Your task to perform on an android device: snooze an email in the gmail app Image 0: 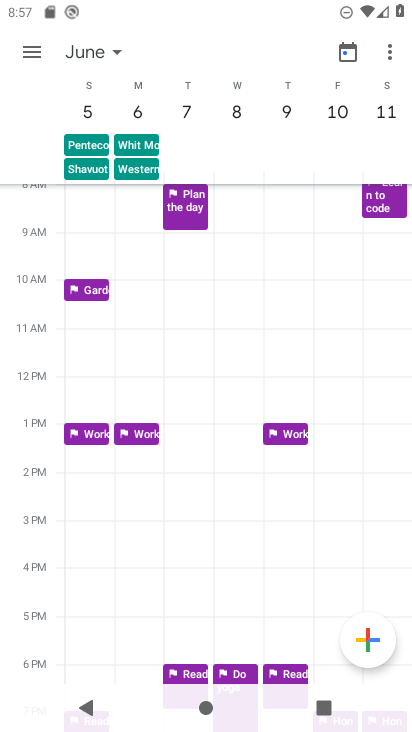
Step 0: press home button
Your task to perform on an android device: snooze an email in the gmail app Image 1: 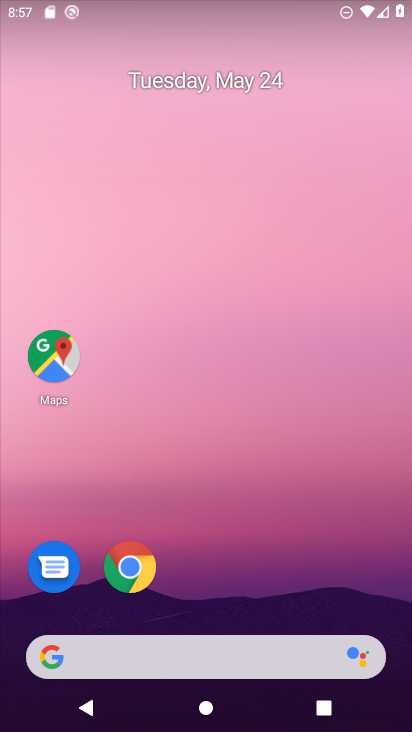
Step 1: drag from (162, 660) to (306, 222)
Your task to perform on an android device: snooze an email in the gmail app Image 2: 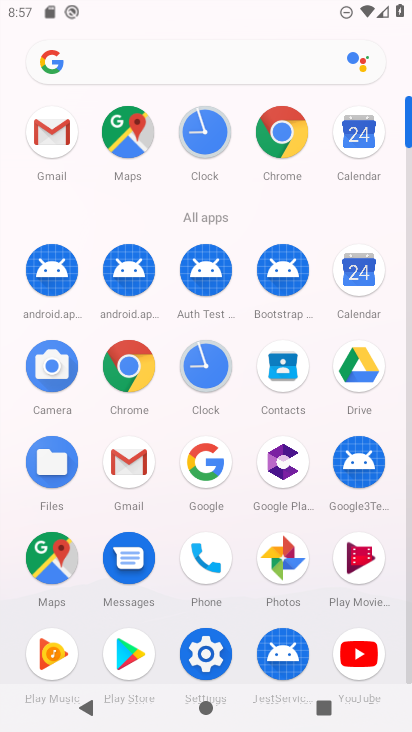
Step 2: click (53, 138)
Your task to perform on an android device: snooze an email in the gmail app Image 3: 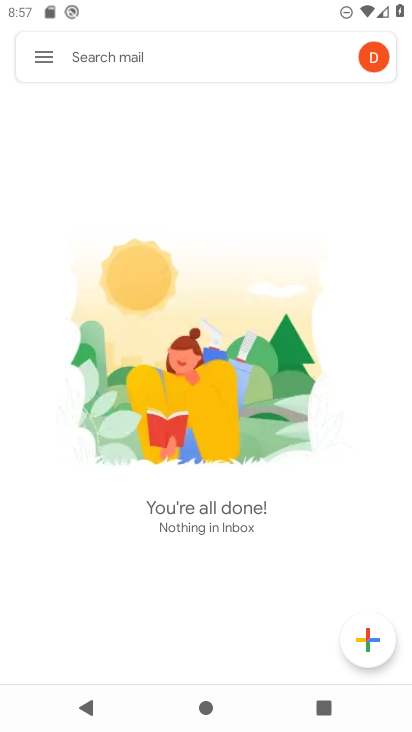
Step 3: task complete